Your task to perform on an android device: turn on sleep mode Image 0: 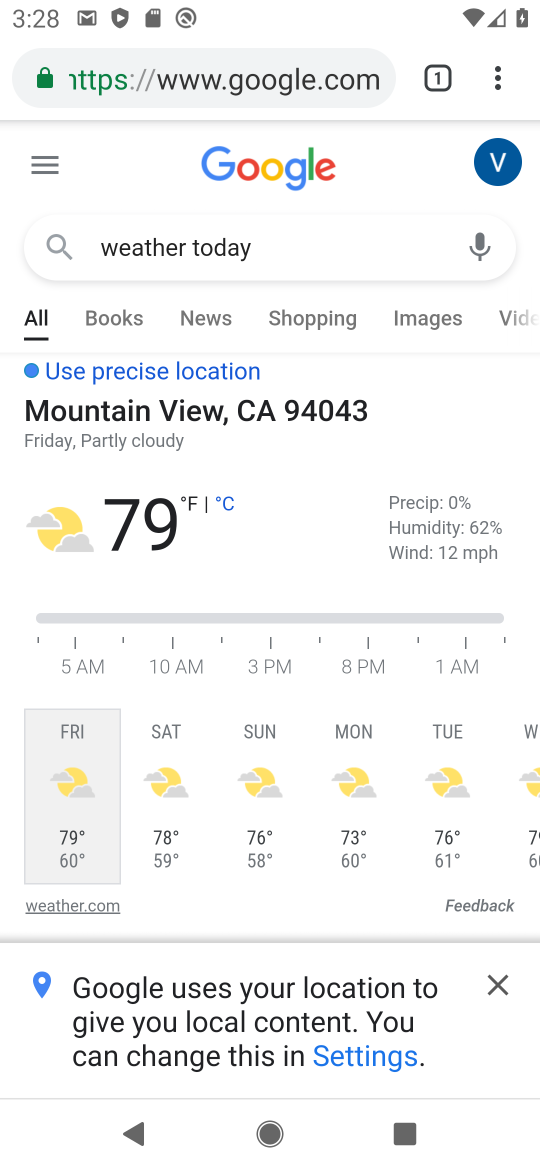
Step 0: press home button
Your task to perform on an android device: turn on sleep mode Image 1: 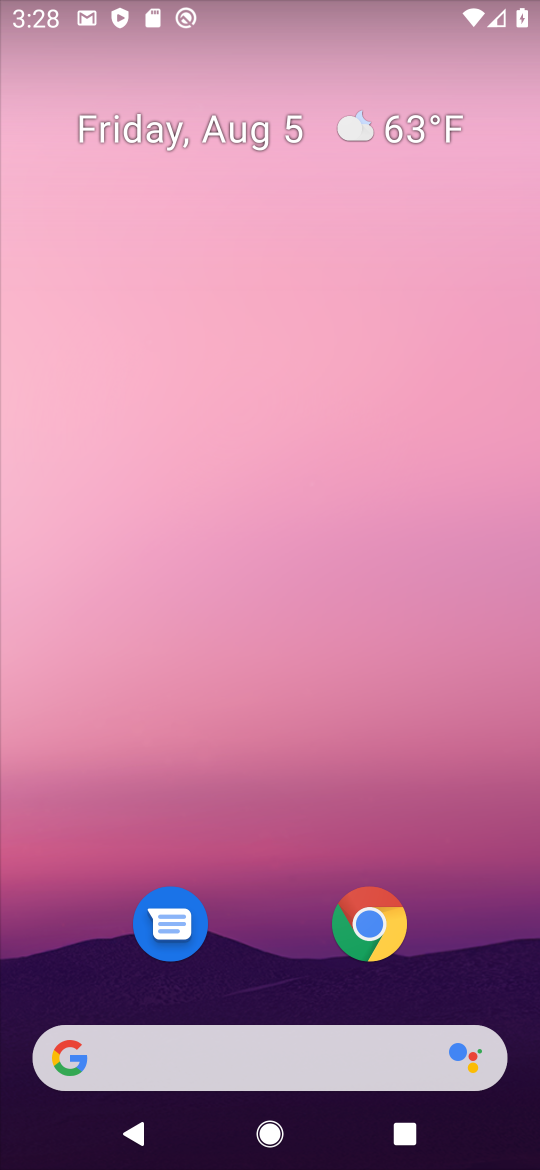
Step 1: drag from (320, 577) to (271, 69)
Your task to perform on an android device: turn on sleep mode Image 2: 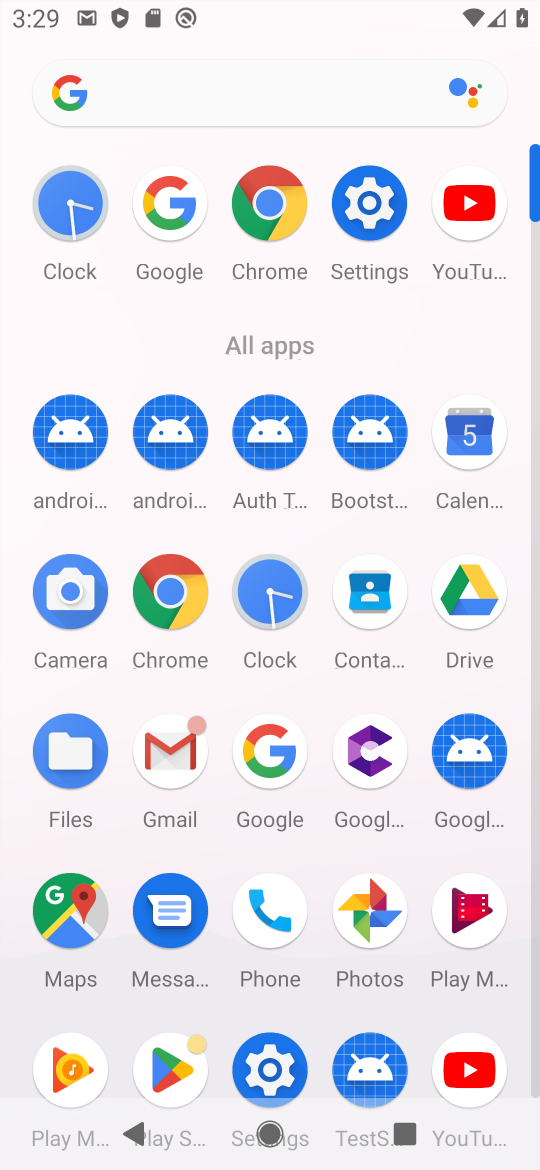
Step 2: click (371, 183)
Your task to perform on an android device: turn on sleep mode Image 3: 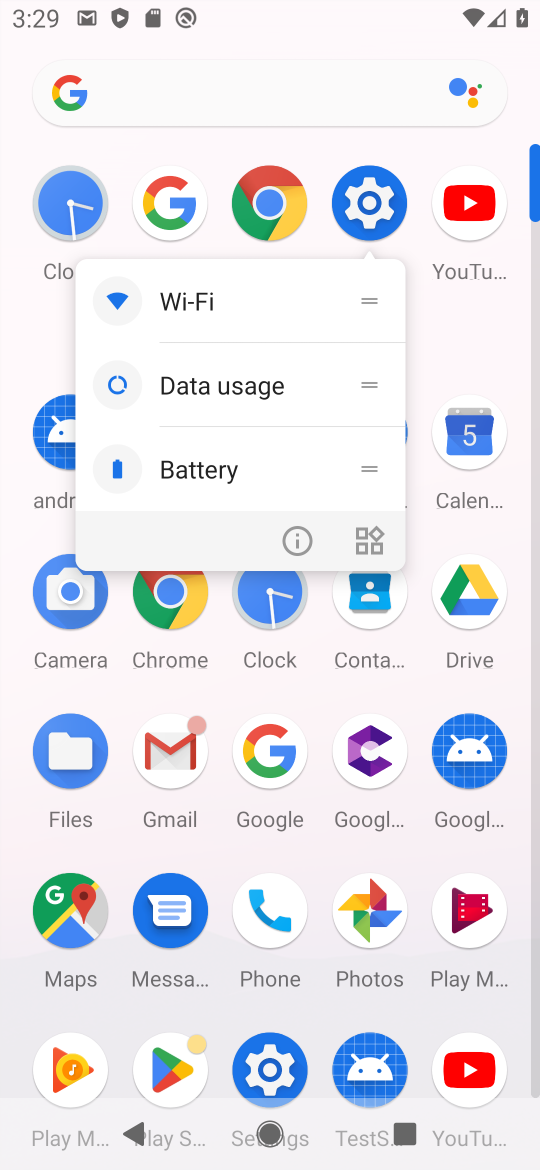
Step 3: click (386, 206)
Your task to perform on an android device: turn on sleep mode Image 4: 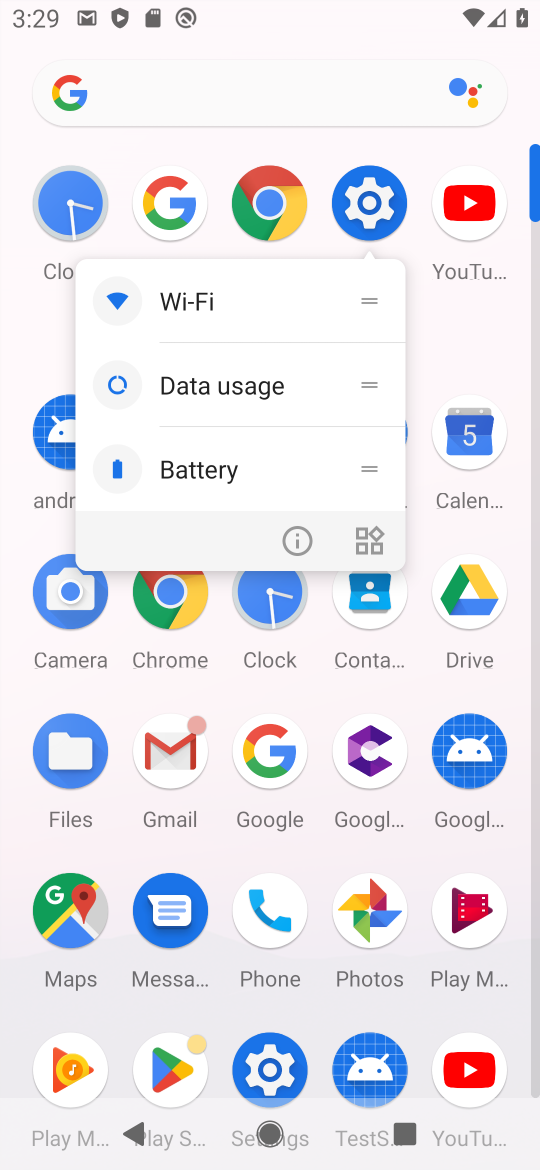
Step 4: click (367, 230)
Your task to perform on an android device: turn on sleep mode Image 5: 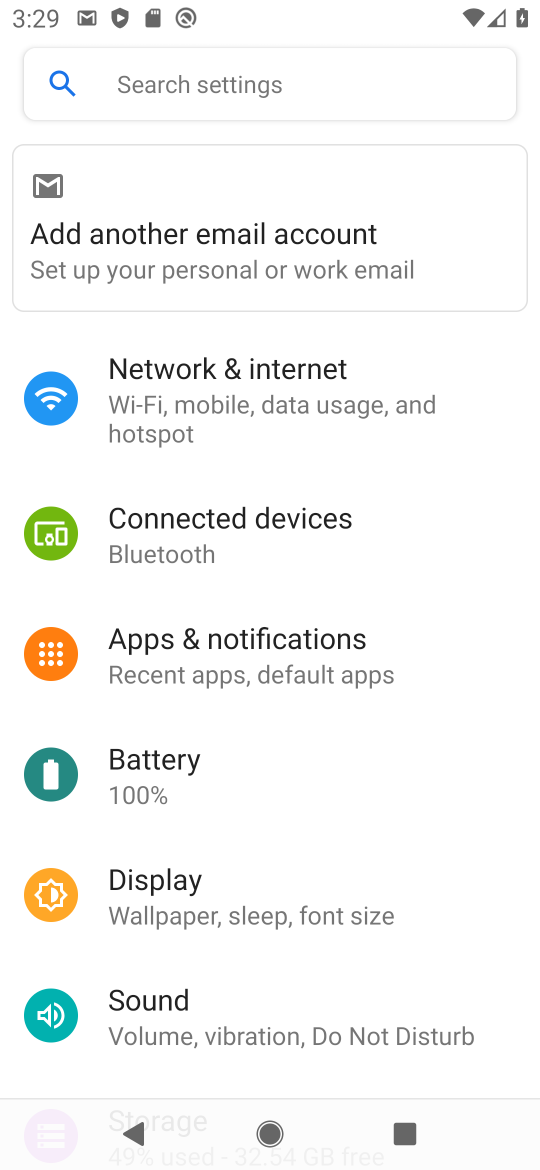
Step 5: task complete